Your task to perform on an android device: Search for Mexican restaurants on Maps Image 0: 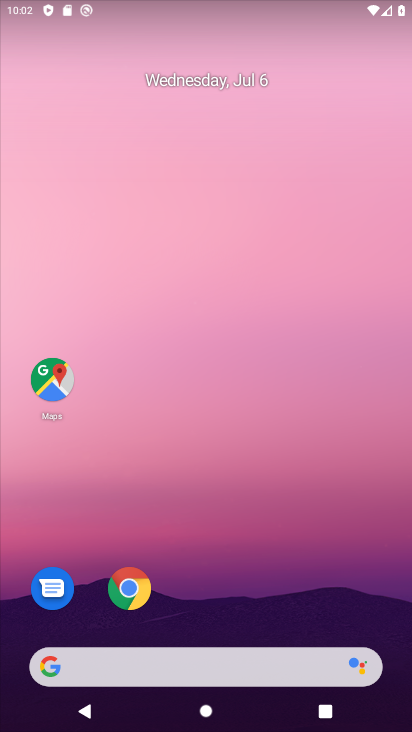
Step 0: drag from (271, 602) to (254, 138)
Your task to perform on an android device: Search for Mexican restaurants on Maps Image 1: 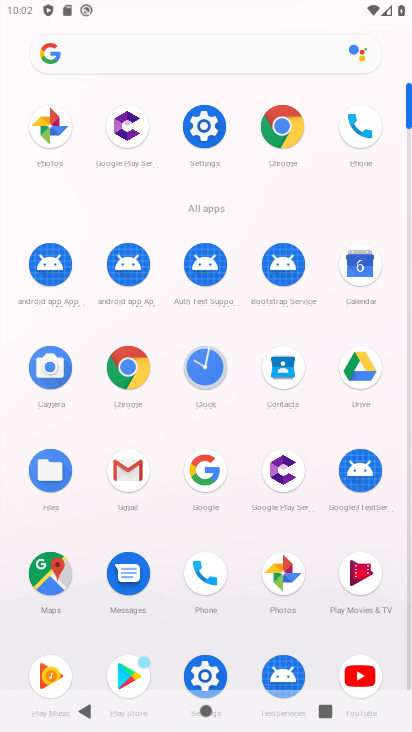
Step 1: click (40, 561)
Your task to perform on an android device: Search for Mexican restaurants on Maps Image 2: 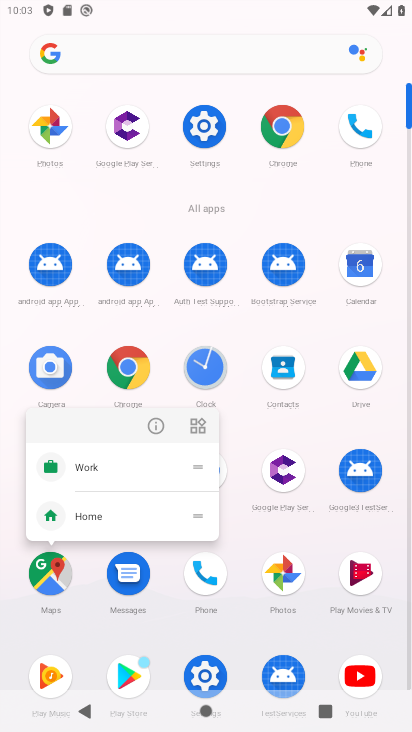
Step 2: click (40, 563)
Your task to perform on an android device: Search for Mexican restaurants on Maps Image 3: 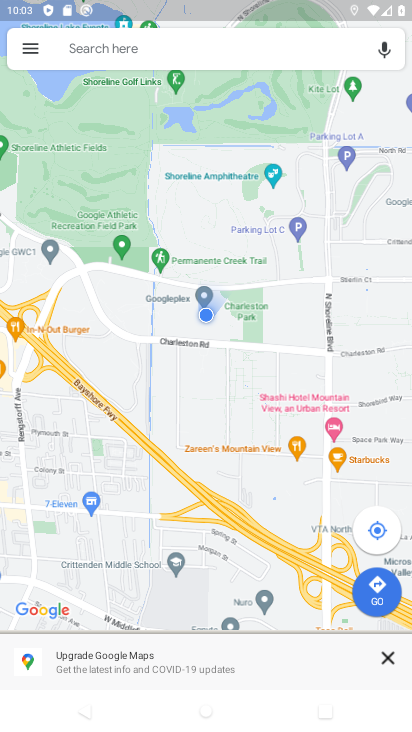
Step 3: click (186, 43)
Your task to perform on an android device: Search for Mexican restaurants on Maps Image 4: 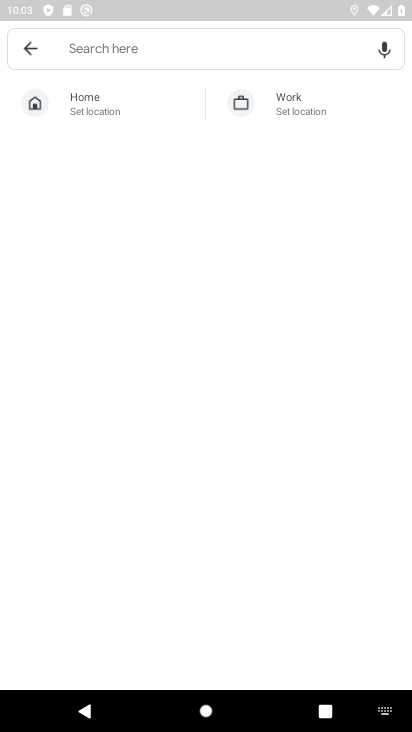
Step 4: type " Mexican restaurants "
Your task to perform on an android device: Search for Mexican restaurants on Maps Image 5: 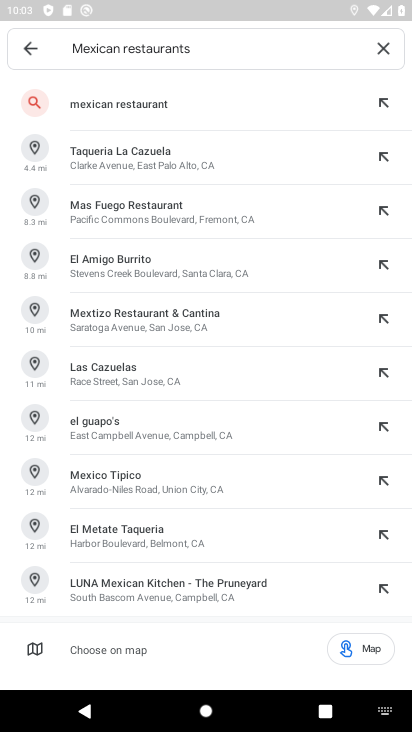
Step 5: click (88, 93)
Your task to perform on an android device: Search for Mexican restaurants on Maps Image 6: 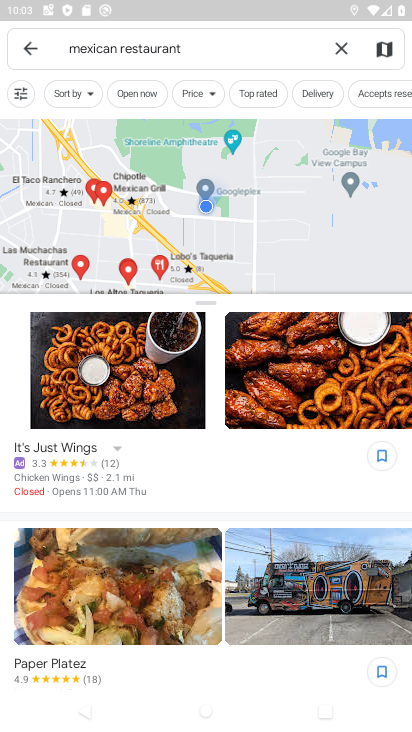
Step 6: task complete